Your task to perform on an android device: open app "ZOOM Cloud Meetings" (install if not already installed) Image 0: 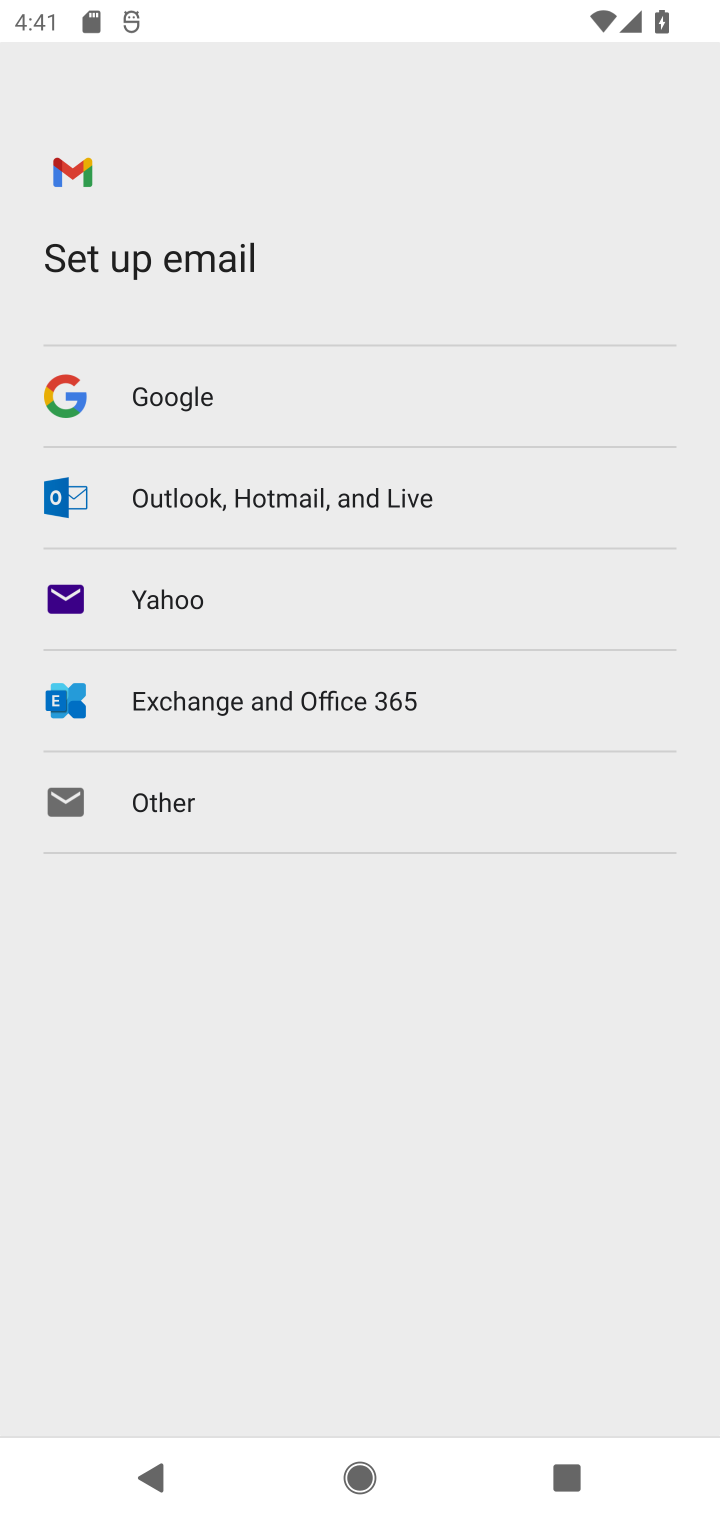
Step 0: press home button
Your task to perform on an android device: open app "ZOOM Cloud Meetings" (install if not already installed) Image 1: 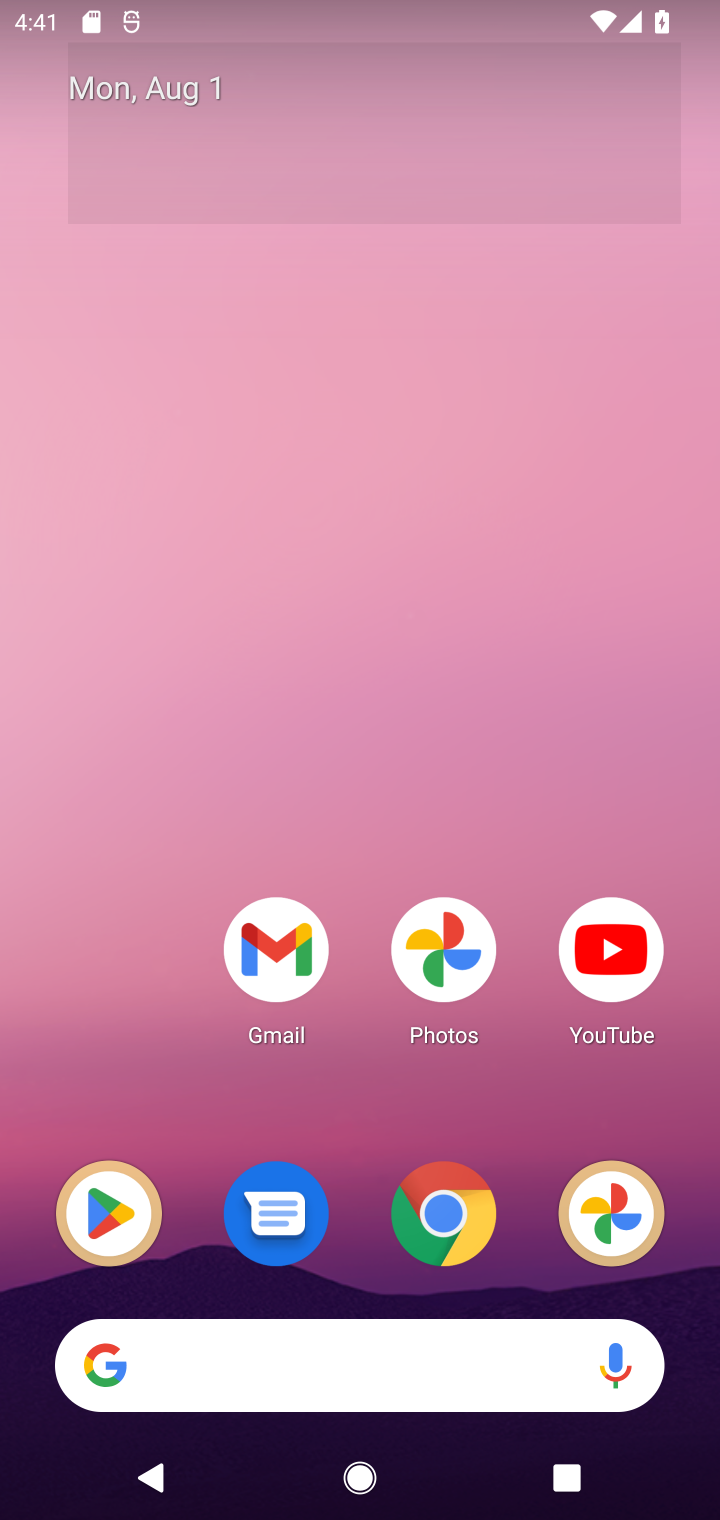
Step 1: drag from (534, 1118) to (449, 215)
Your task to perform on an android device: open app "ZOOM Cloud Meetings" (install if not already installed) Image 2: 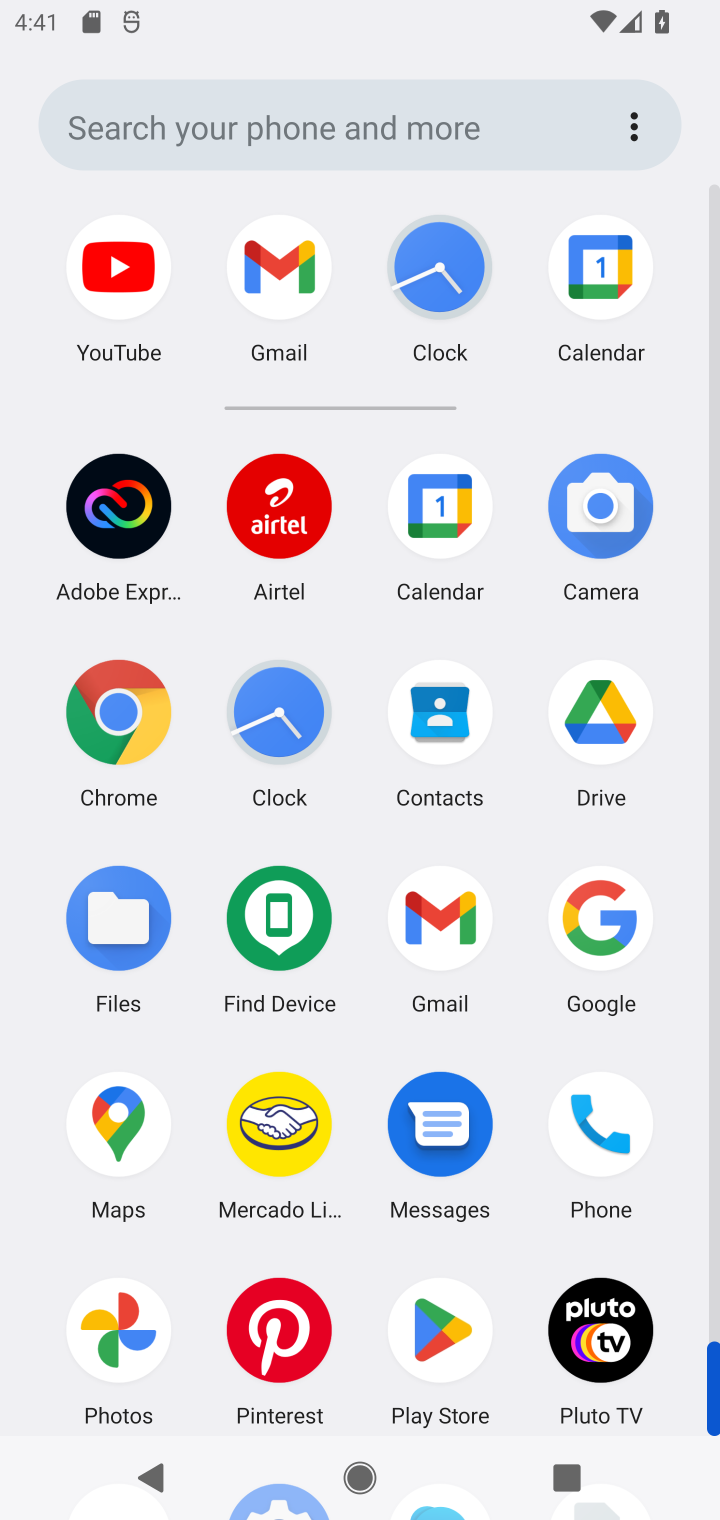
Step 2: click (442, 1307)
Your task to perform on an android device: open app "ZOOM Cloud Meetings" (install if not already installed) Image 3: 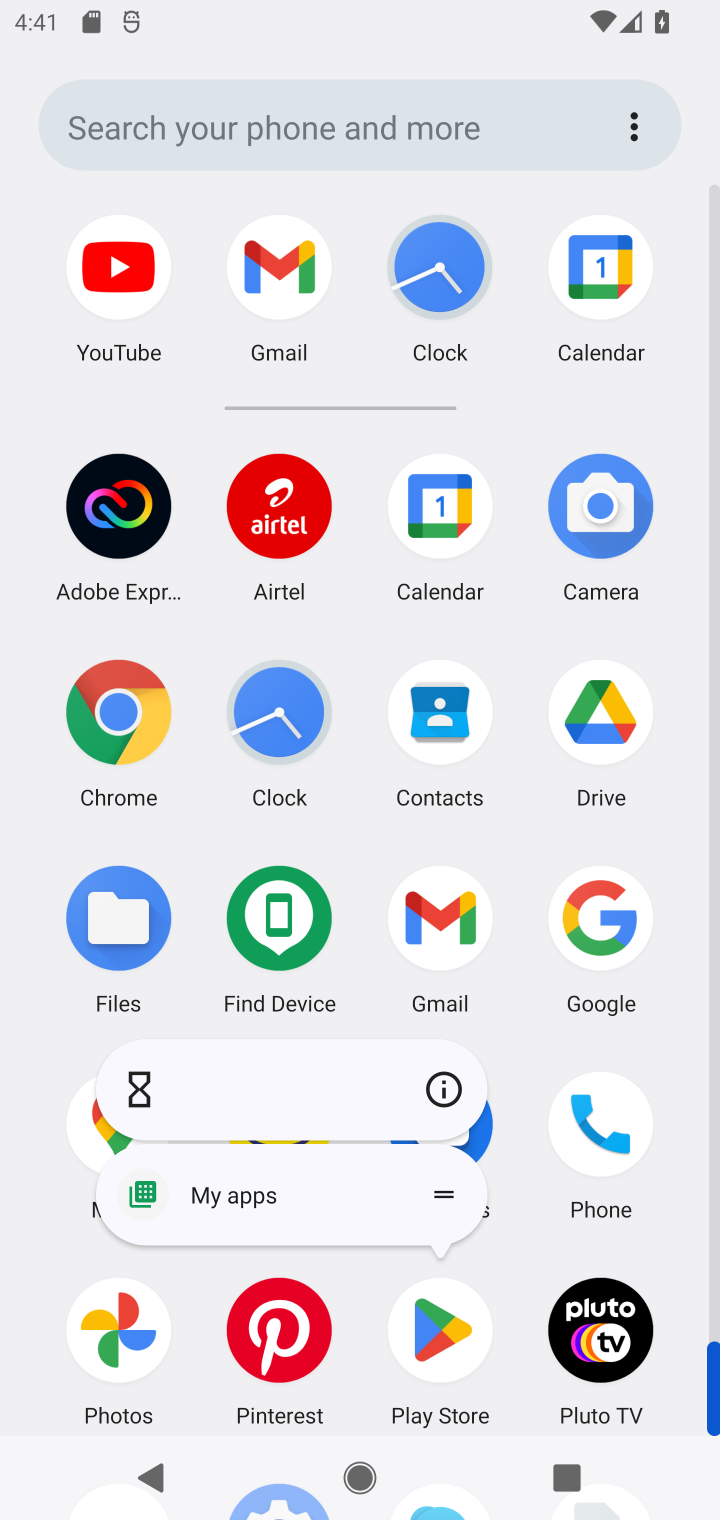
Step 3: click (436, 1330)
Your task to perform on an android device: open app "ZOOM Cloud Meetings" (install if not already installed) Image 4: 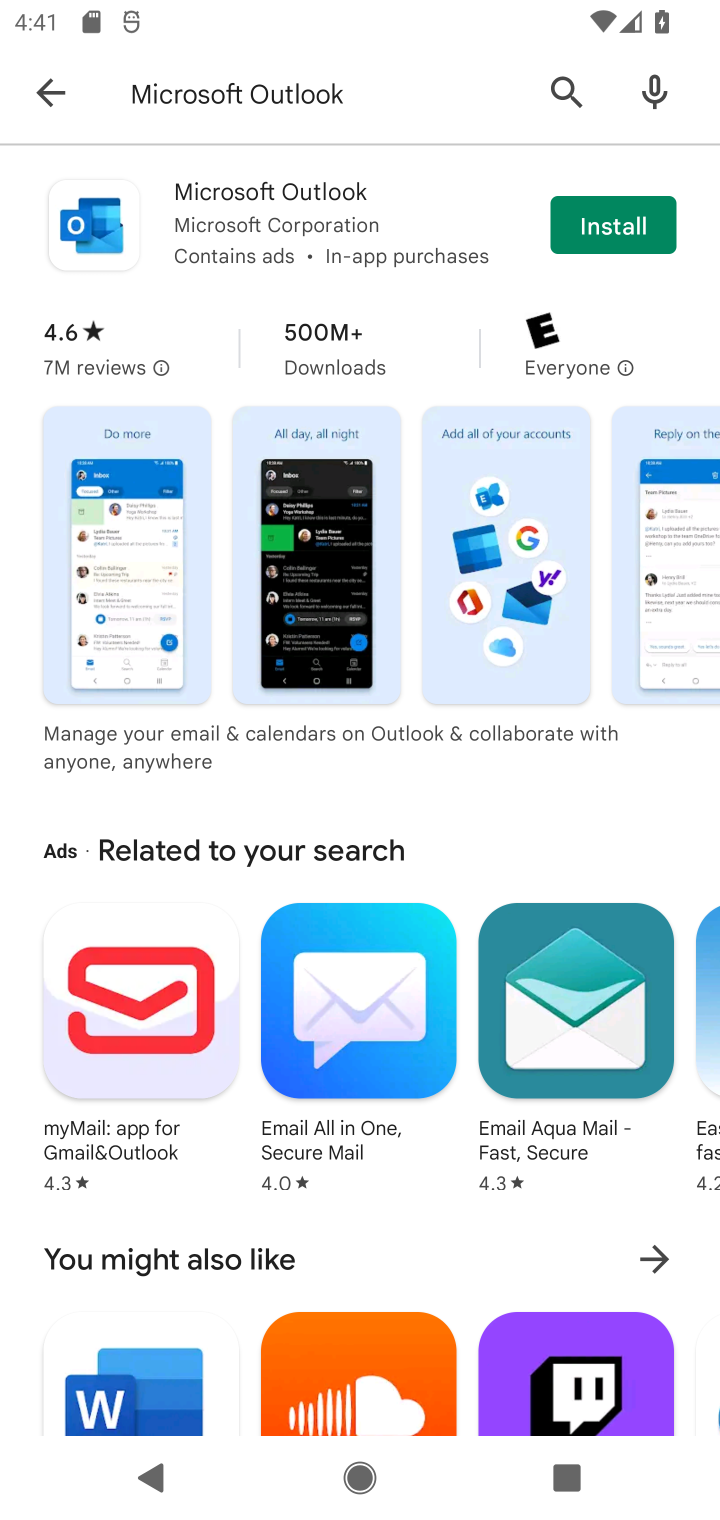
Step 4: click (364, 91)
Your task to perform on an android device: open app "ZOOM Cloud Meetings" (install if not already installed) Image 5: 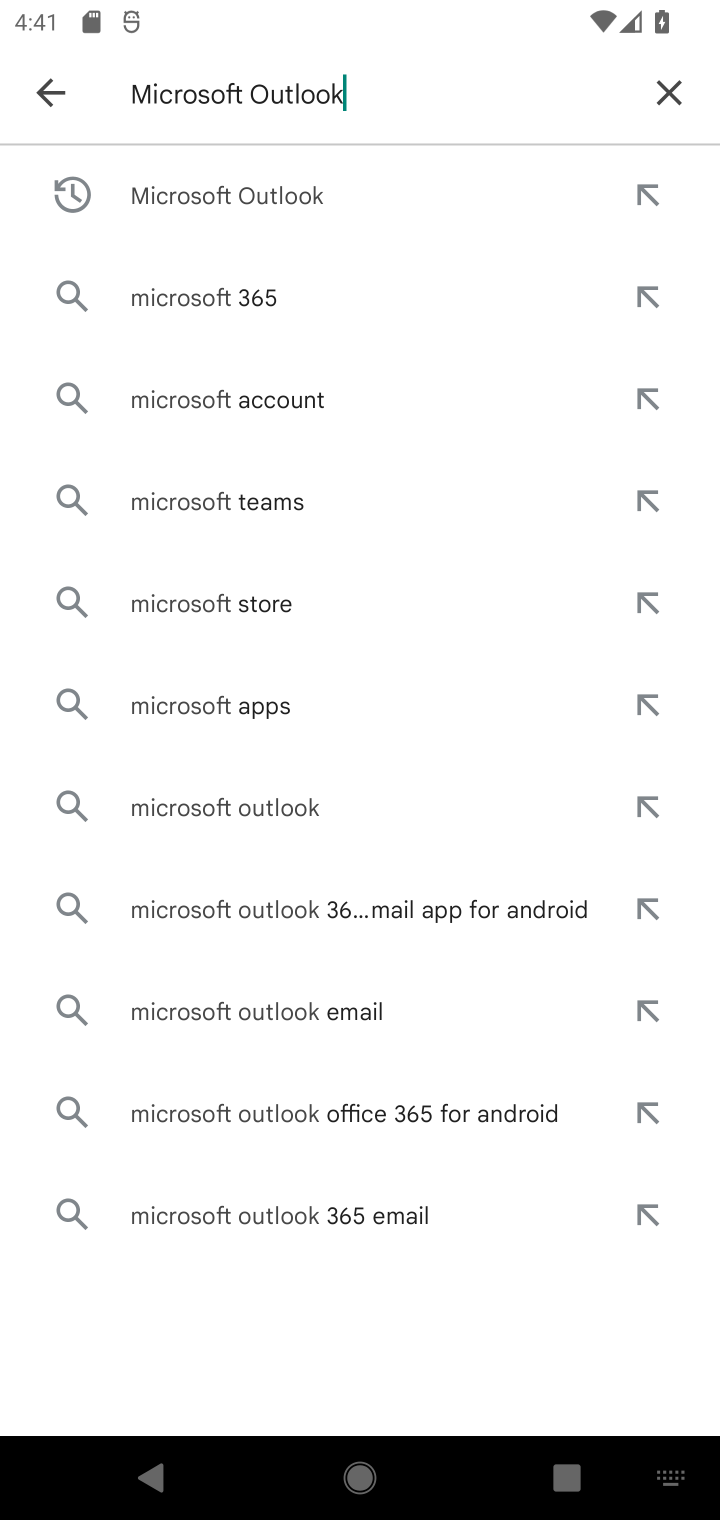
Step 5: click (669, 83)
Your task to perform on an android device: open app "ZOOM Cloud Meetings" (install if not already installed) Image 6: 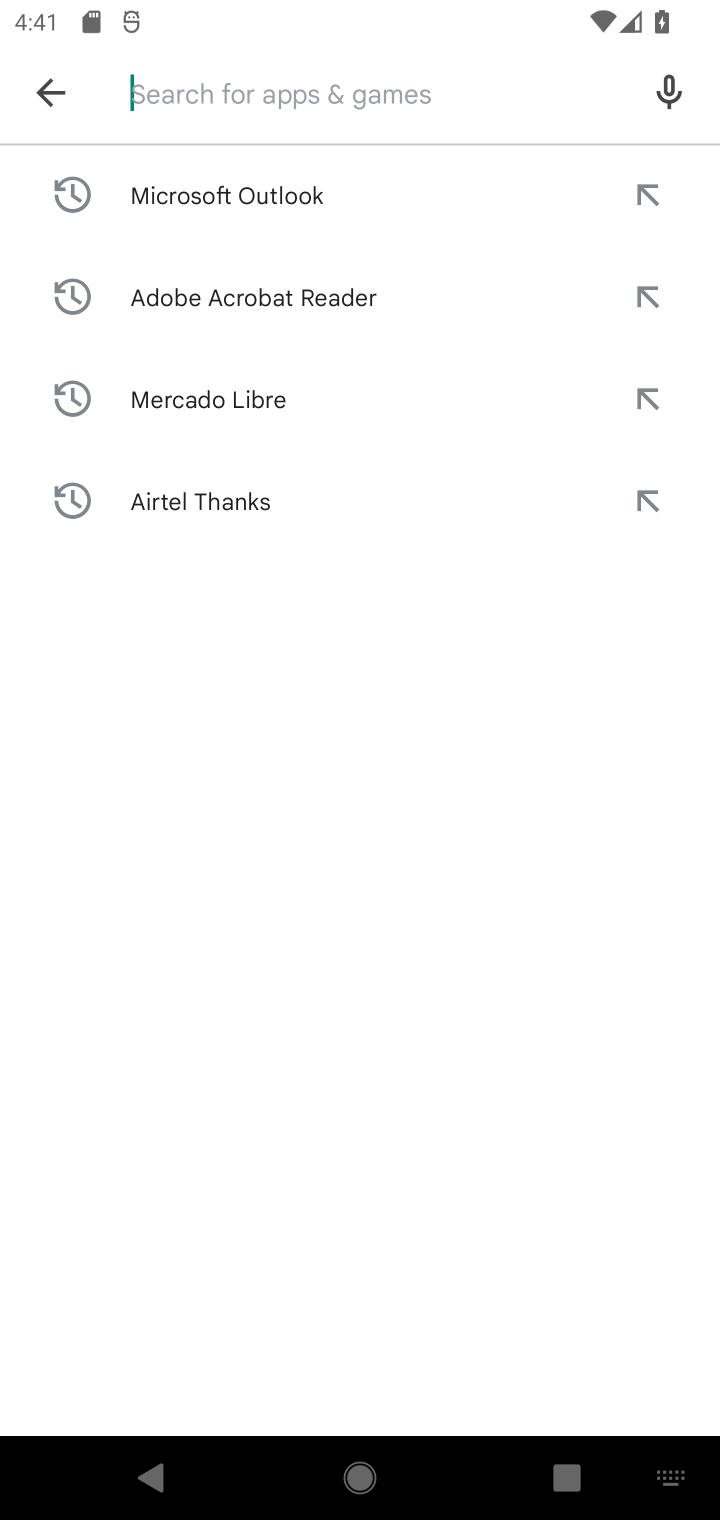
Step 6: type "ZOOM Cloud Meetings"
Your task to perform on an android device: open app "ZOOM Cloud Meetings" (install if not already installed) Image 7: 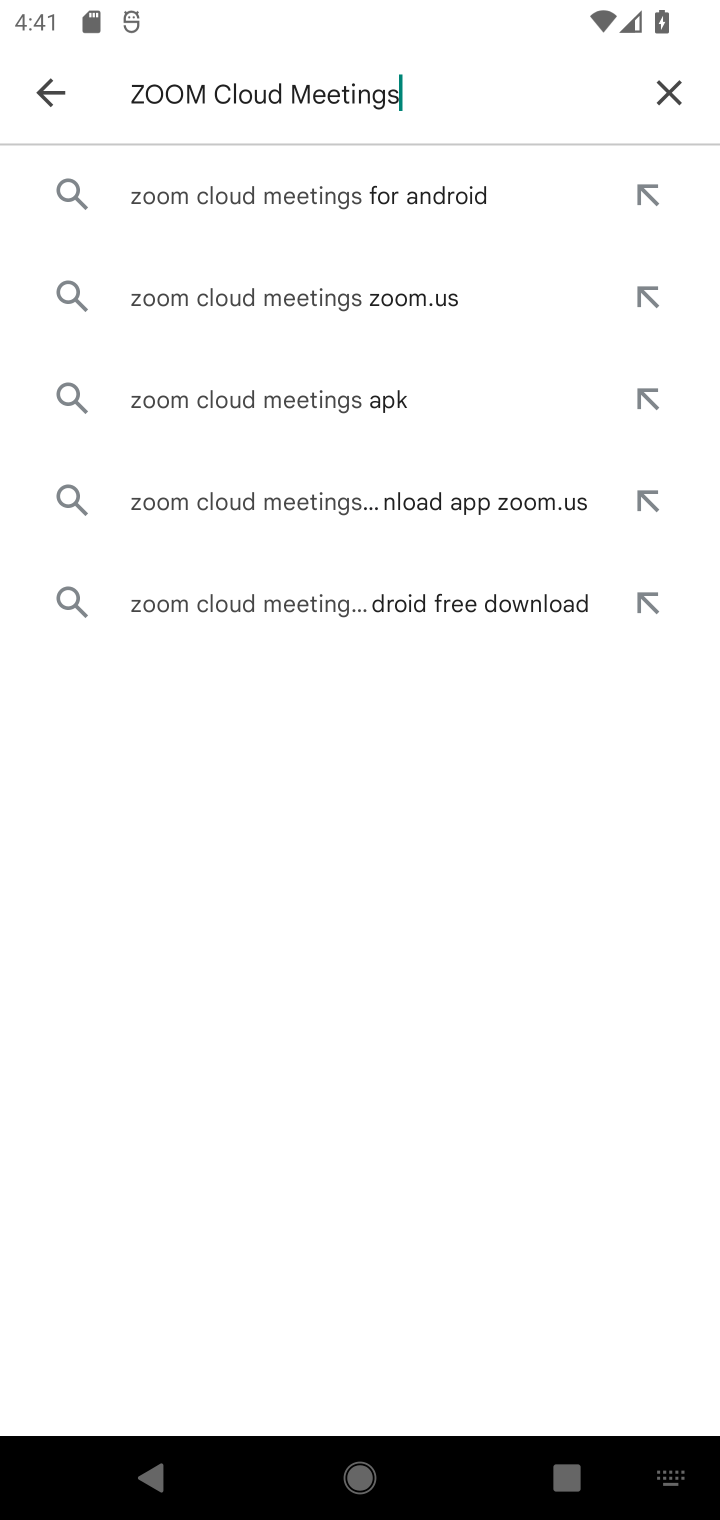
Step 7: press enter
Your task to perform on an android device: open app "ZOOM Cloud Meetings" (install if not already installed) Image 8: 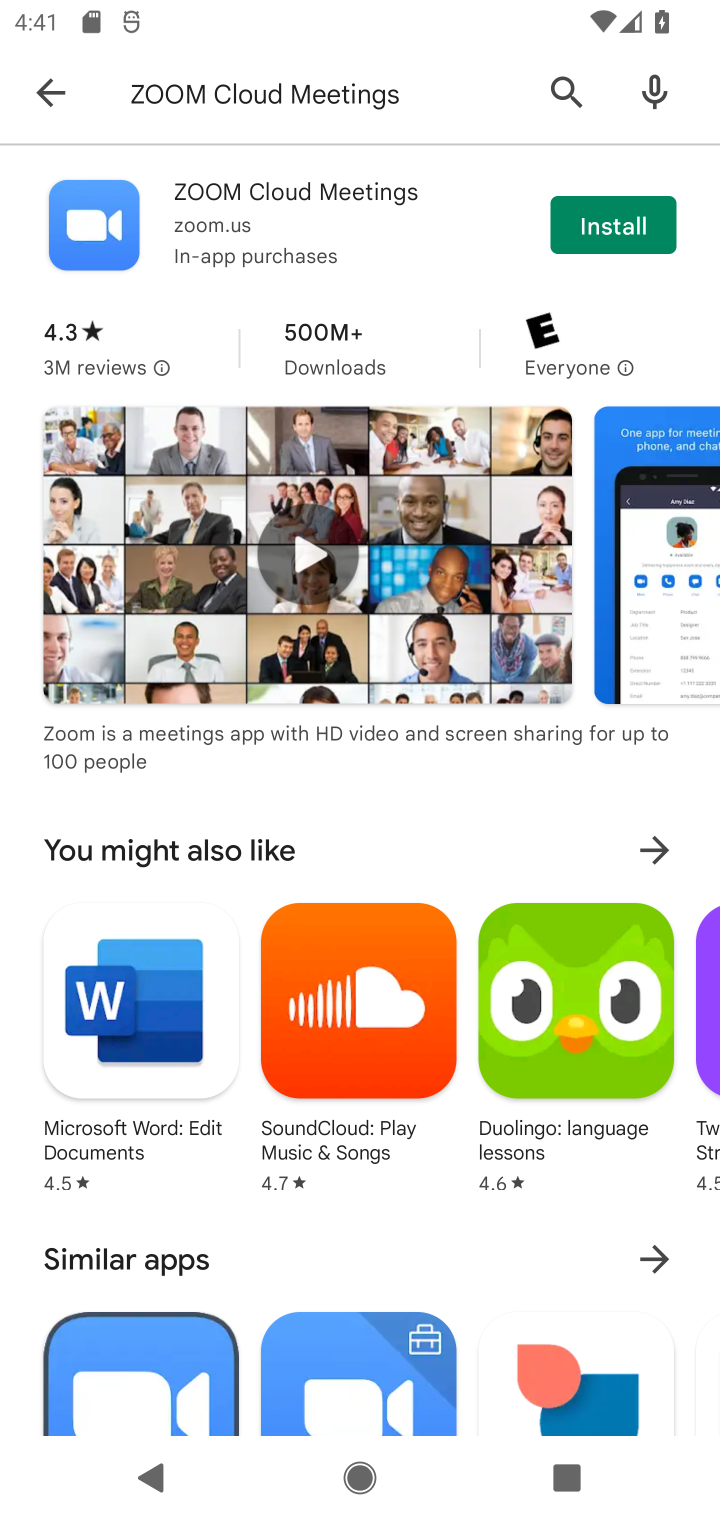
Step 8: click (655, 226)
Your task to perform on an android device: open app "ZOOM Cloud Meetings" (install if not already installed) Image 9: 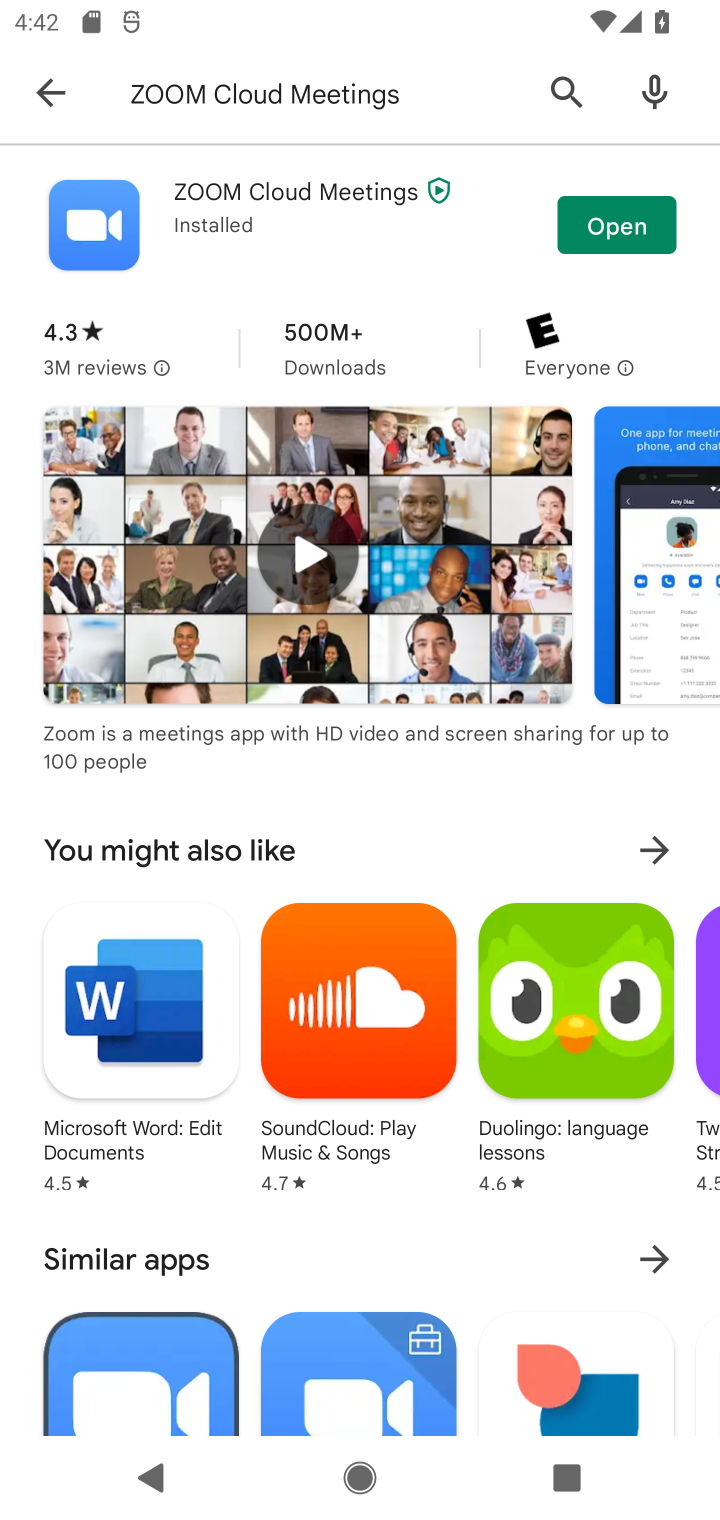
Step 9: click (655, 223)
Your task to perform on an android device: open app "ZOOM Cloud Meetings" (install if not already installed) Image 10: 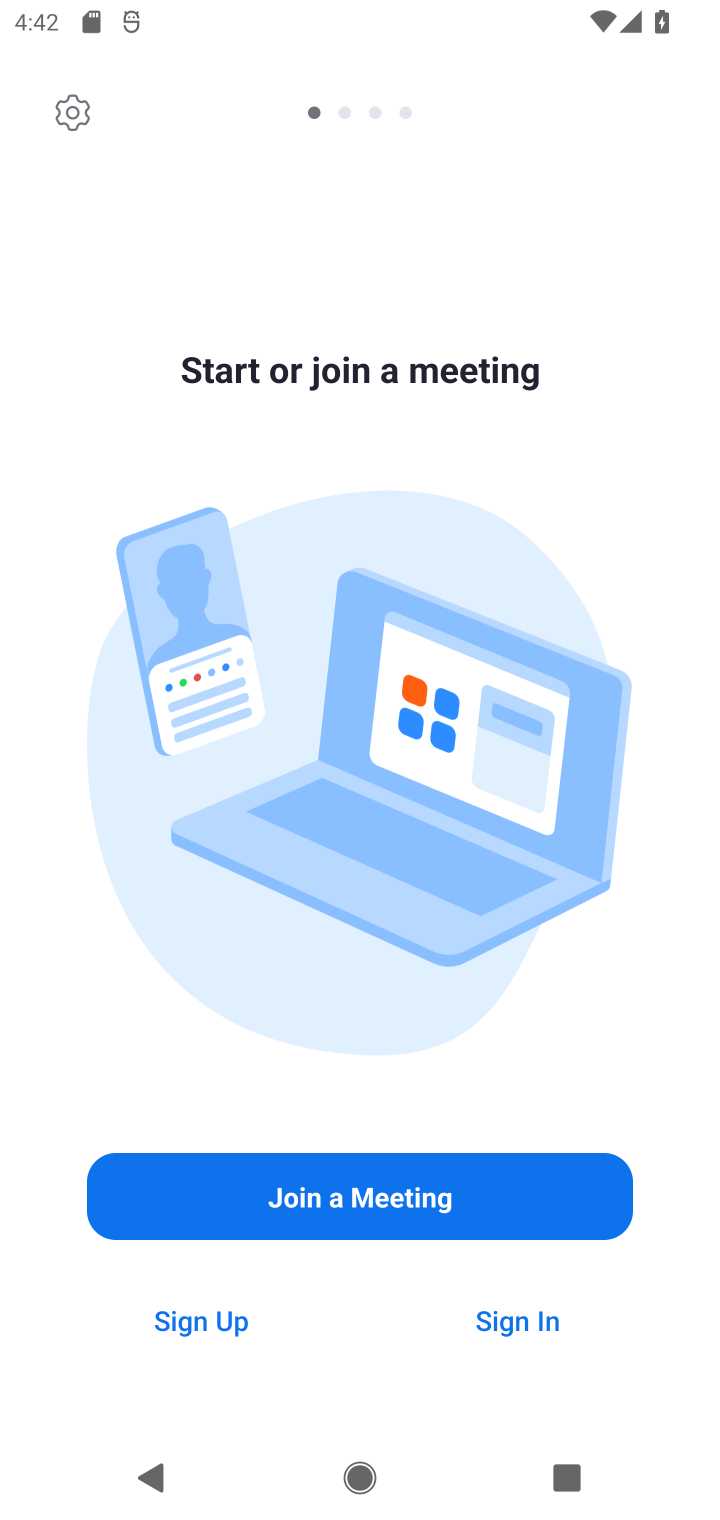
Step 10: task complete